Your task to perform on an android device: create a new album in the google photos Image 0: 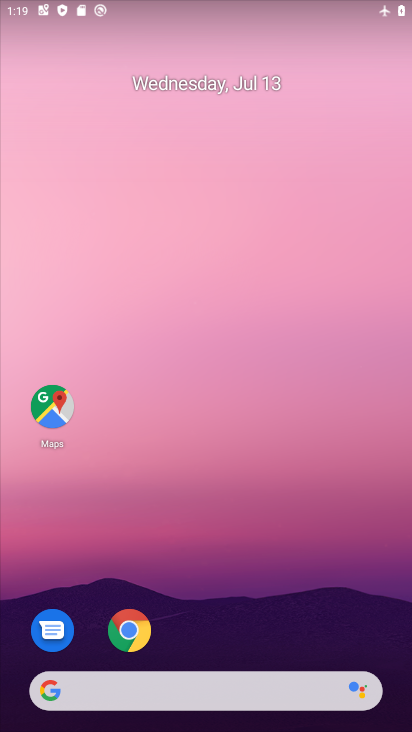
Step 0: drag from (339, 616) to (332, 122)
Your task to perform on an android device: create a new album in the google photos Image 1: 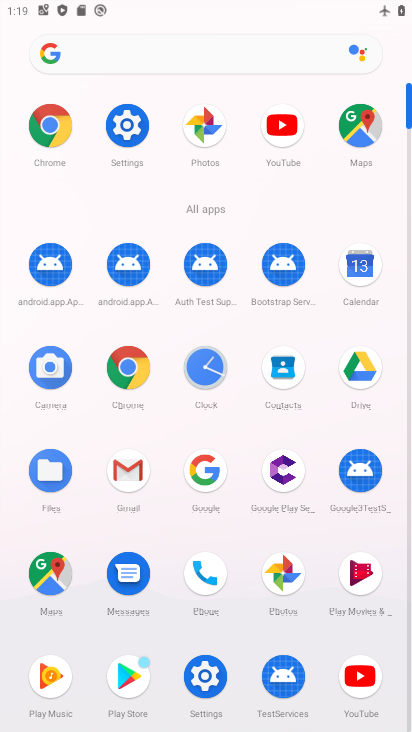
Step 1: click (288, 570)
Your task to perform on an android device: create a new album in the google photos Image 2: 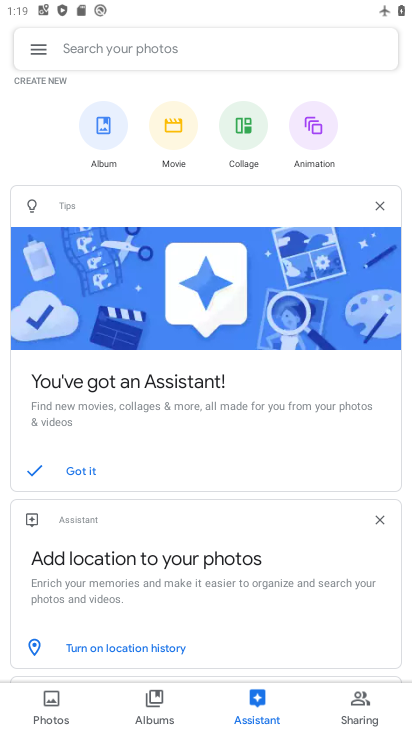
Step 2: click (149, 708)
Your task to perform on an android device: create a new album in the google photos Image 3: 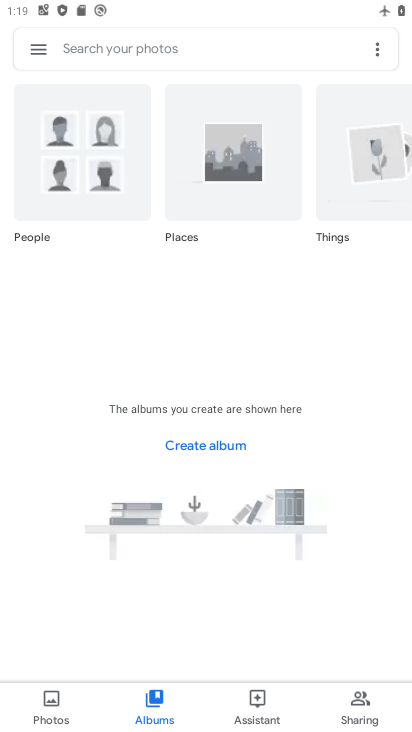
Step 3: click (228, 439)
Your task to perform on an android device: create a new album in the google photos Image 4: 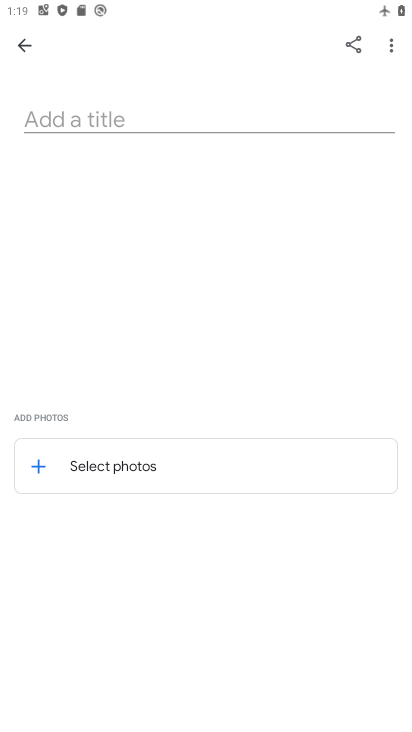
Step 4: click (178, 112)
Your task to perform on an android device: create a new album in the google photos Image 5: 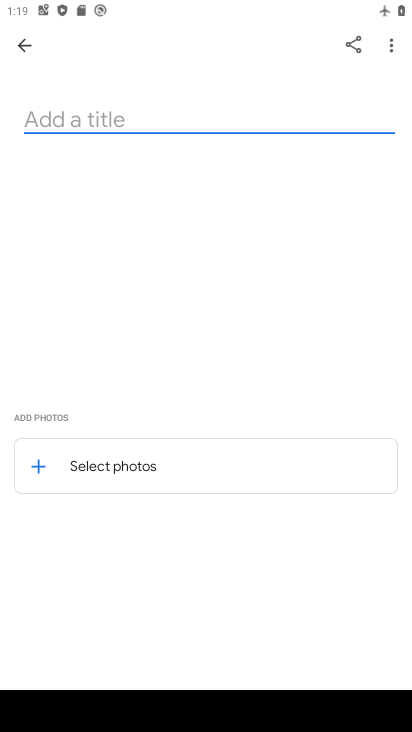
Step 5: type "fav"
Your task to perform on an android device: create a new album in the google photos Image 6: 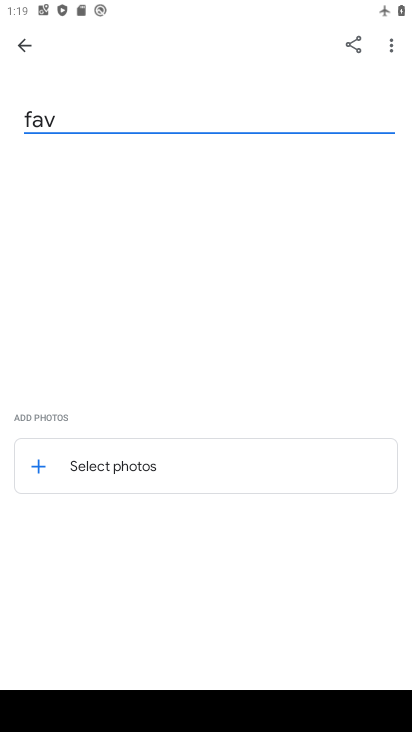
Step 6: click (107, 468)
Your task to perform on an android device: create a new album in the google photos Image 7: 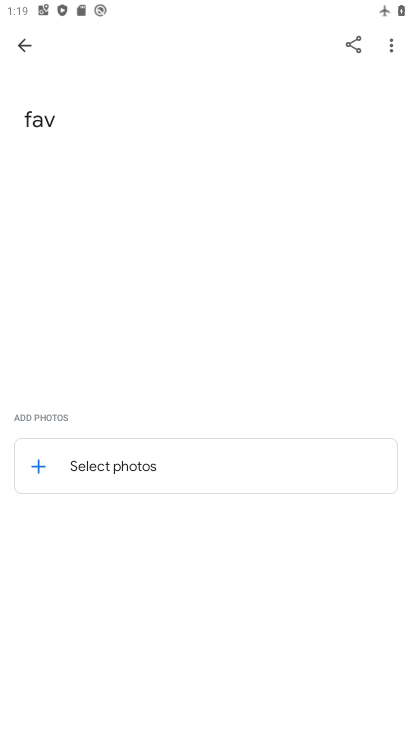
Step 7: click (39, 466)
Your task to perform on an android device: create a new album in the google photos Image 8: 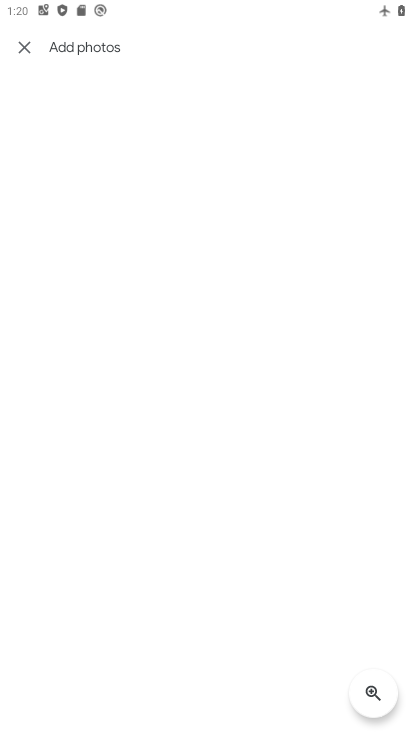
Step 8: task complete